Your task to perform on an android device: Show me the alarms in the clock app Image 0: 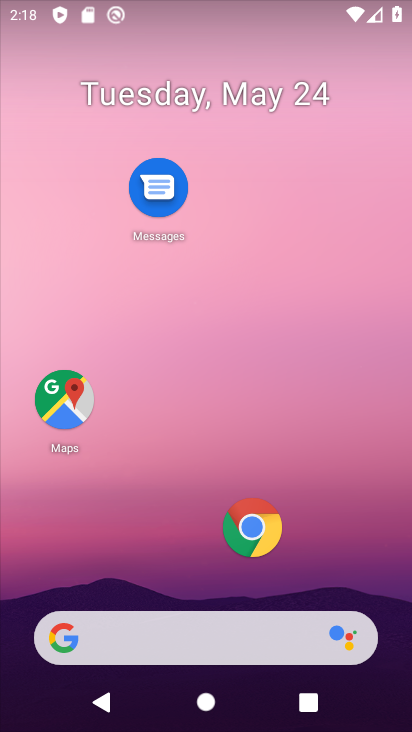
Step 0: drag from (212, 582) to (260, 213)
Your task to perform on an android device: Show me the alarms in the clock app Image 1: 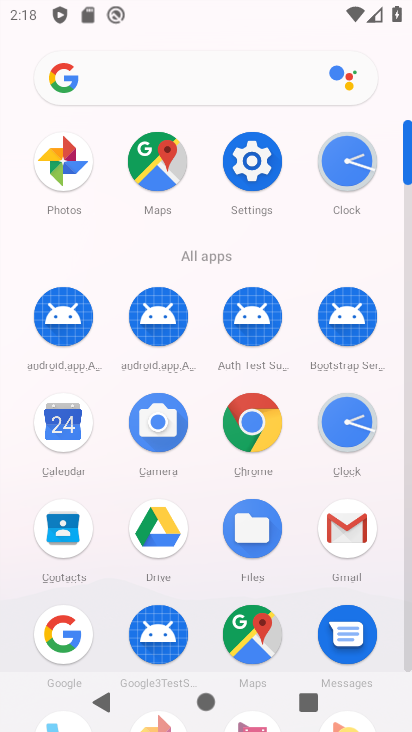
Step 1: click (352, 159)
Your task to perform on an android device: Show me the alarms in the clock app Image 2: 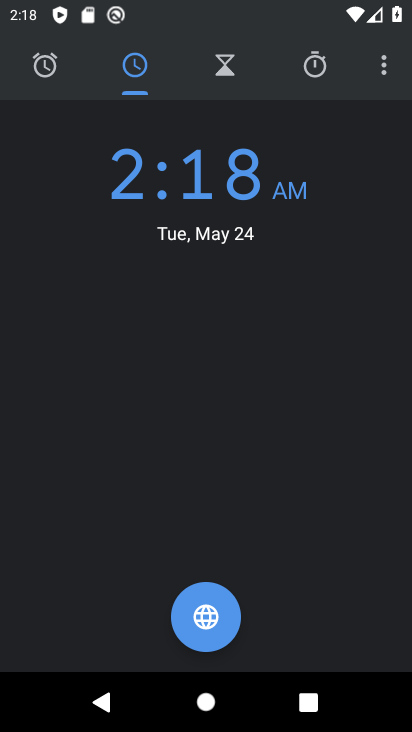
Step 2: click (50, 50)
Your task to perform on an android device: Show me the alarms in the clock app Image 3: 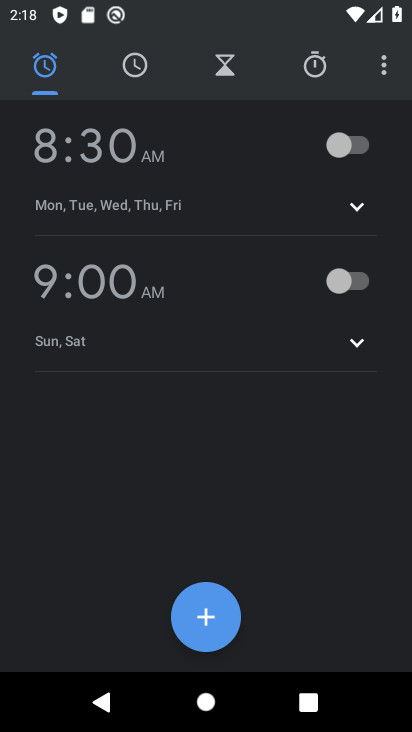
Step 3: task complete